Your task to perform on an android device: uninstall "Move to iOS" Image 0: 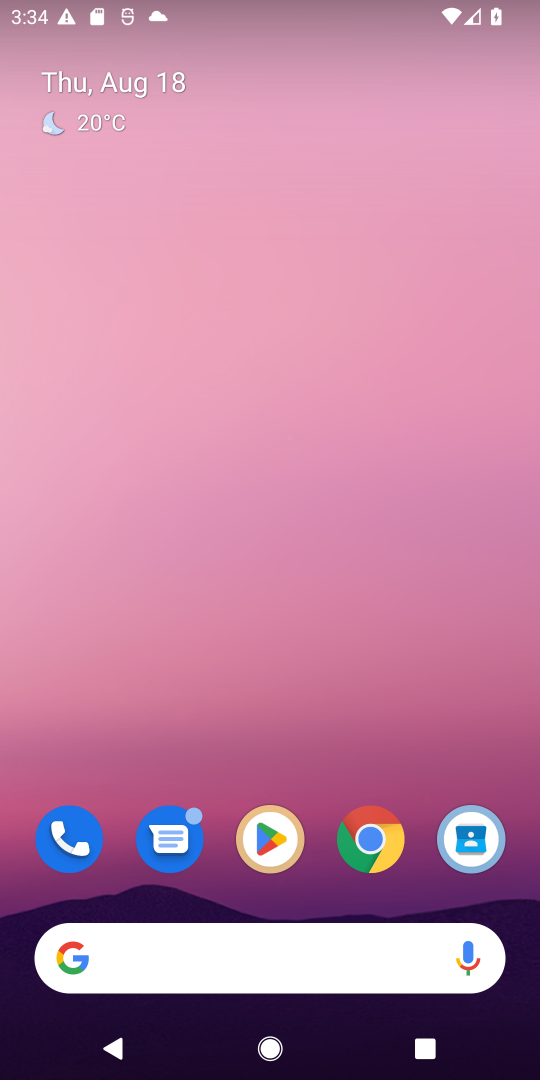
Step 0: click (278, 843)
Your task to perform on an android device: uninstall "Move to iOS" Image 1: 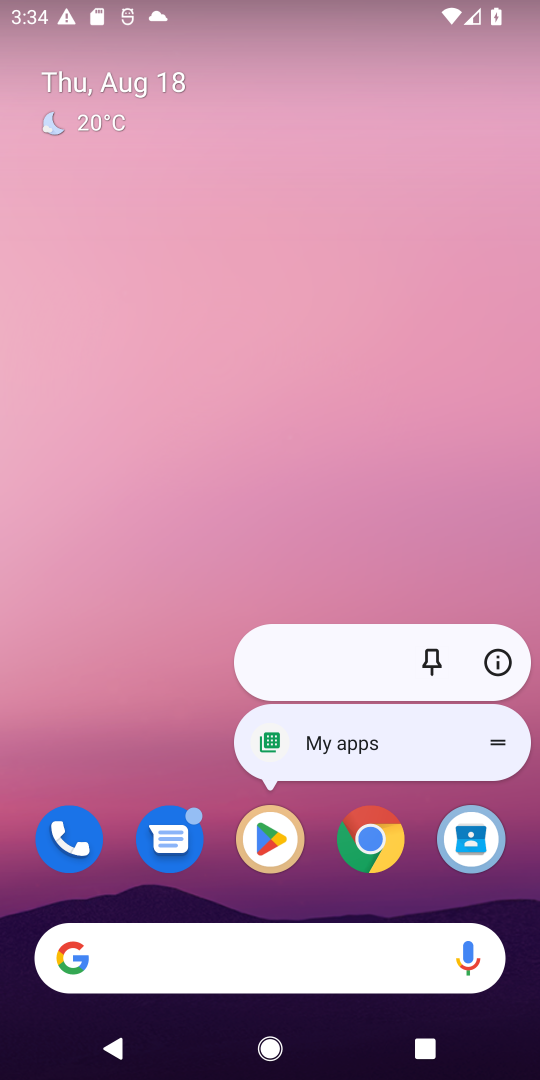
Step 1: click (312, 848)
Your task to perform on an android device: uninstall "Move to iOS" Image 2: 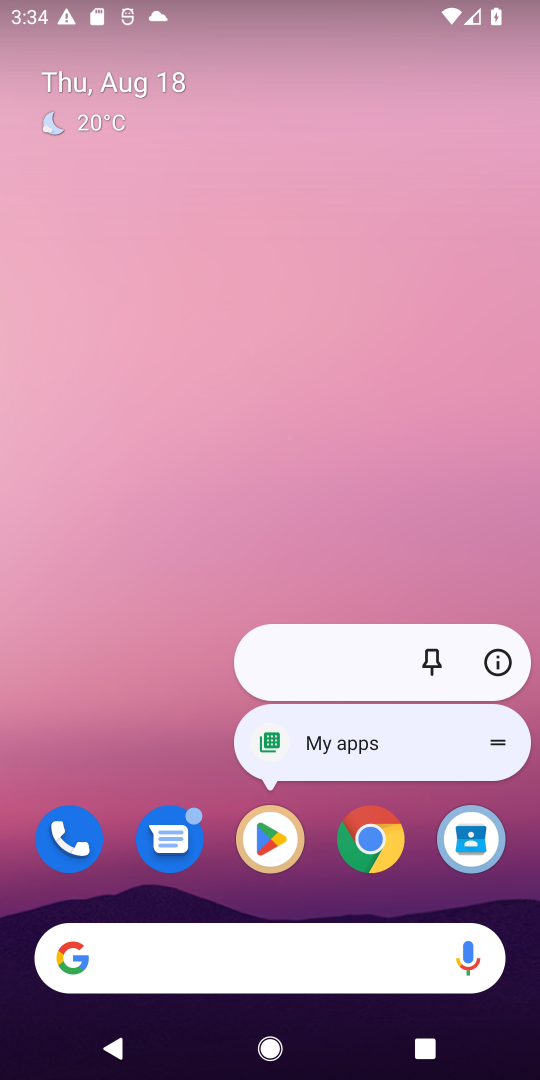
Step 2: click (288, 832)
Your task to perform on an android device: uninstall "Move to iOS" Image 3: 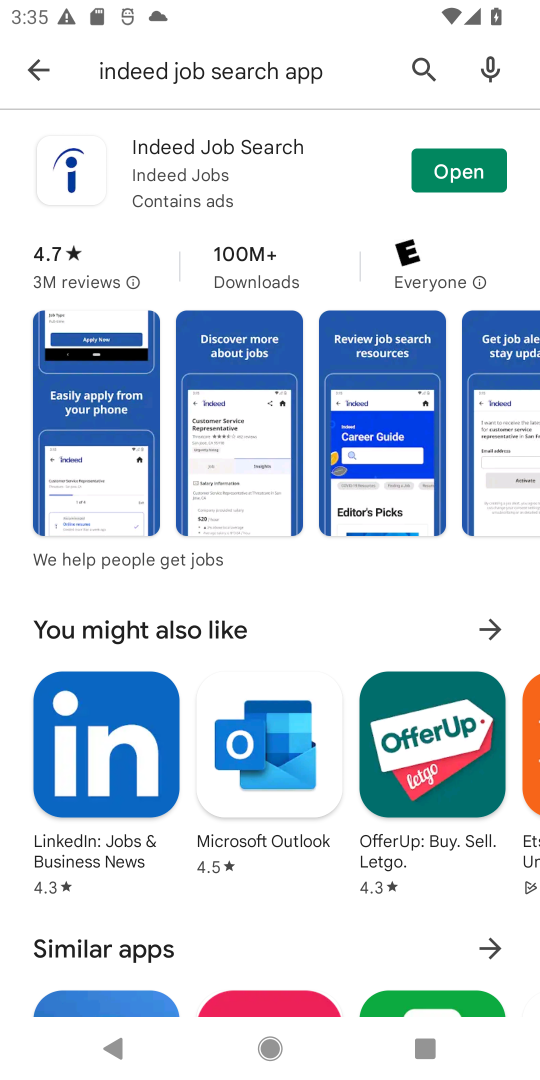
Step 3: click (13, 64)
Your task to perform on an android device: uninstall "Move to iOS" Image 4: 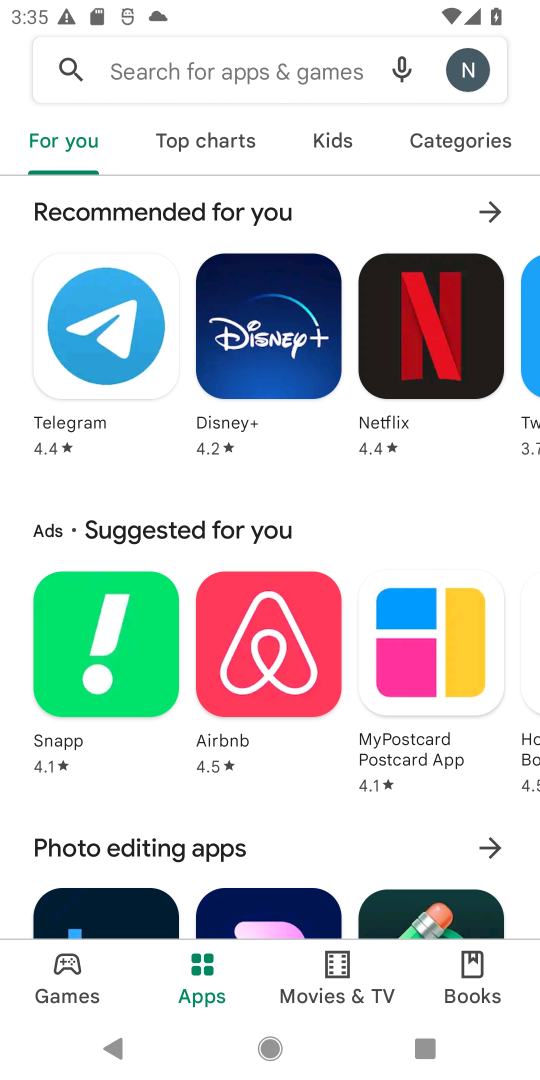
Step 4: click (174, 65)
Your task to perform on an android device: uninstall "Move to iOS" Image 5: 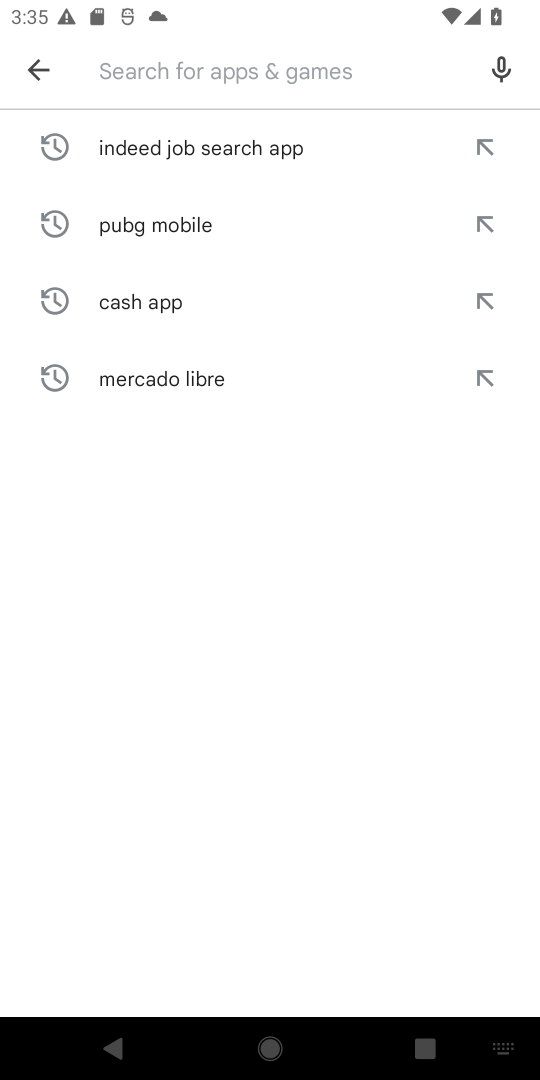
Step 5: type "Move to iOS"
Your task to perform on an android device: uninstall "Move to iOS" Image 6: 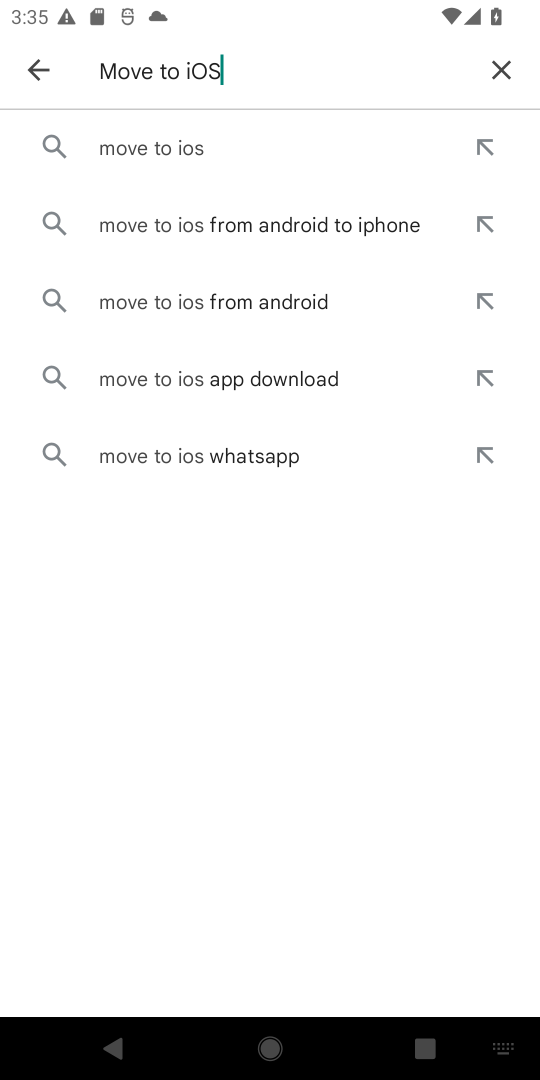
Step 6: type "Move to iOS"
Your task to perform on an android device: uninstall "Move to iOS" Image 7: 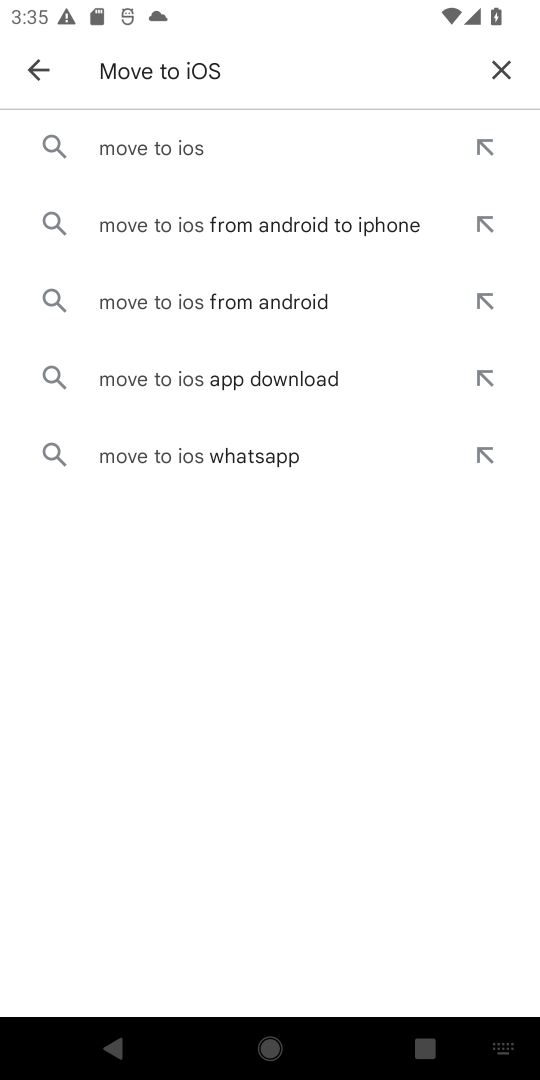
Step 7: click (203, 153)
Your task to perform on an android device: uninstall "Move to iOS" Image 8: 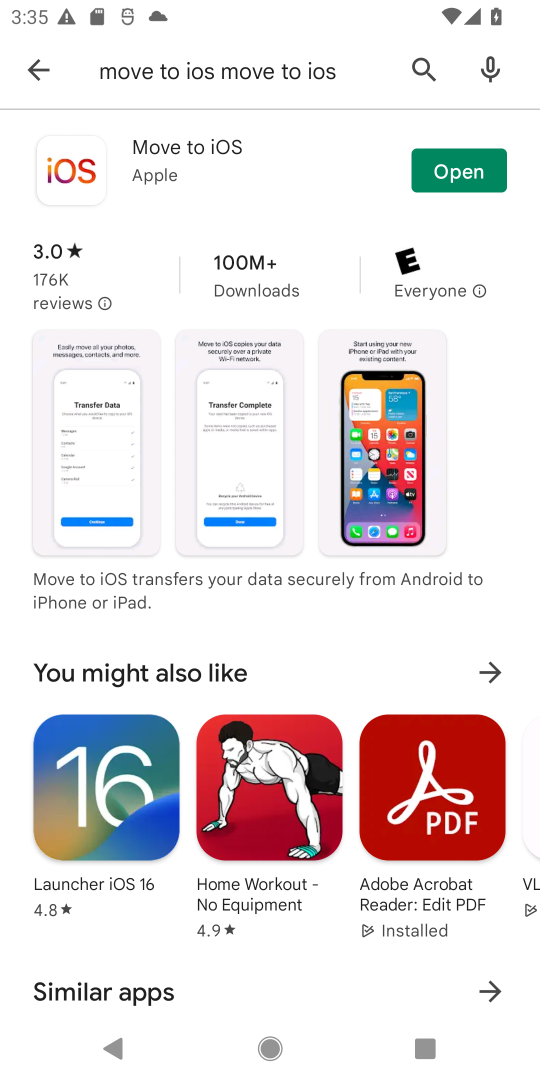
Step 8: click (196, 190)
Your task to perform on an android device: uninstall "Move to iOS" Image 9: 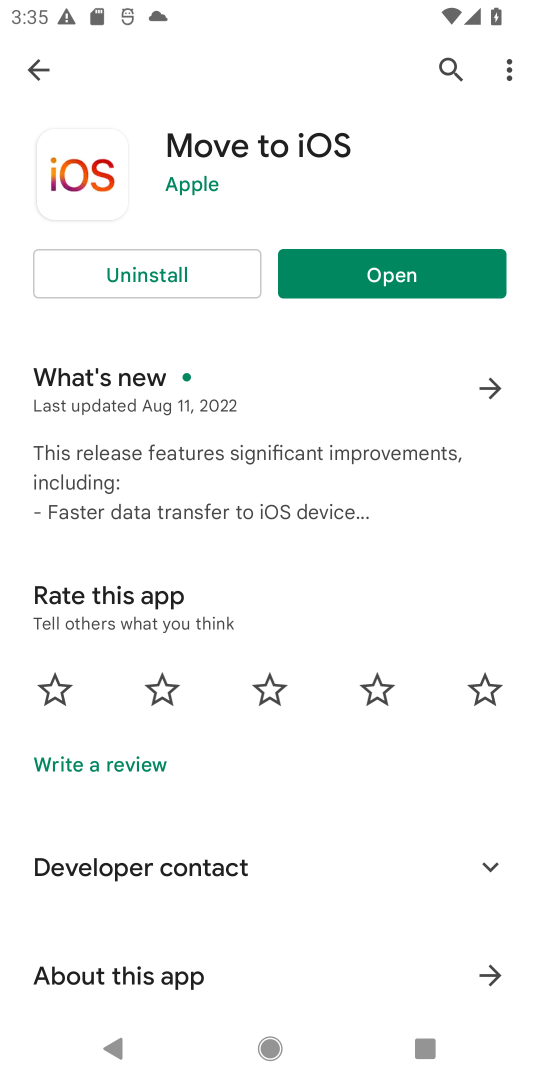
Step 9: click (187, 265)
Your task to perform on an android device: uninstall "Move to iOS" Image 10: 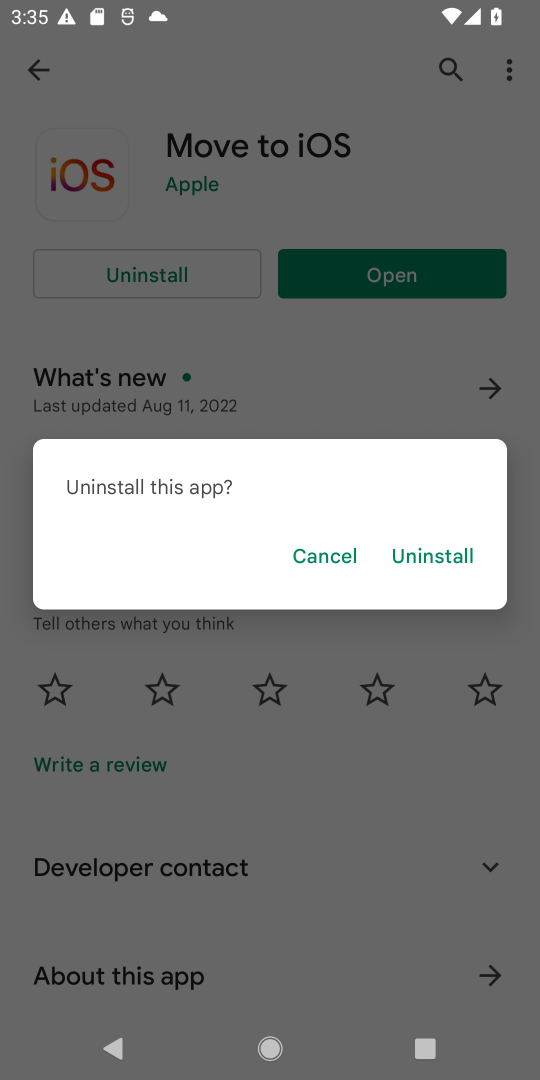
Step 10: click (427, 553)
Your task to perform on an android device: uninstall "Move to iOS" Image 11: 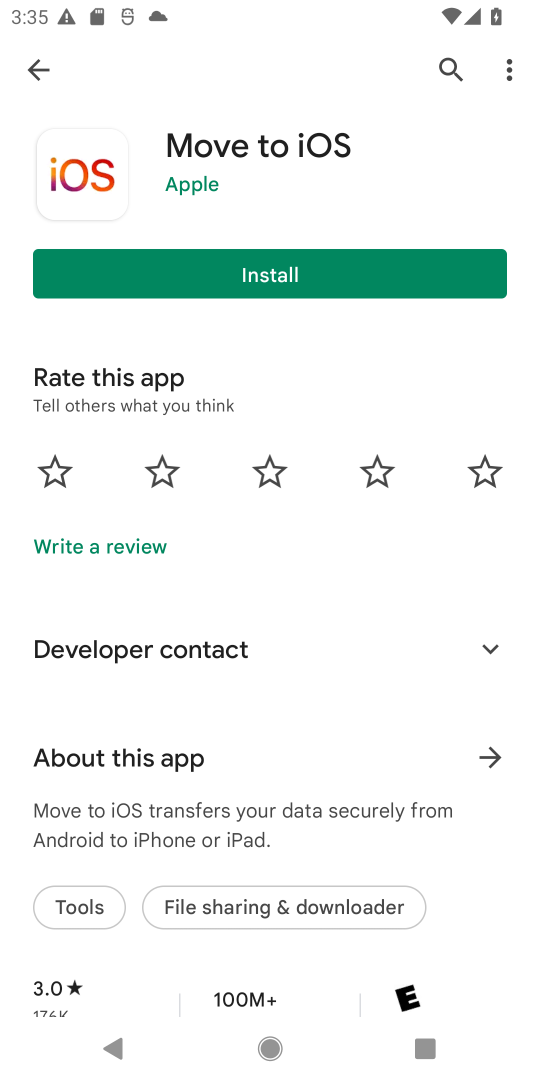
Step 11: task complete